Your task to perform on an android device: Show me recent news Image 0: 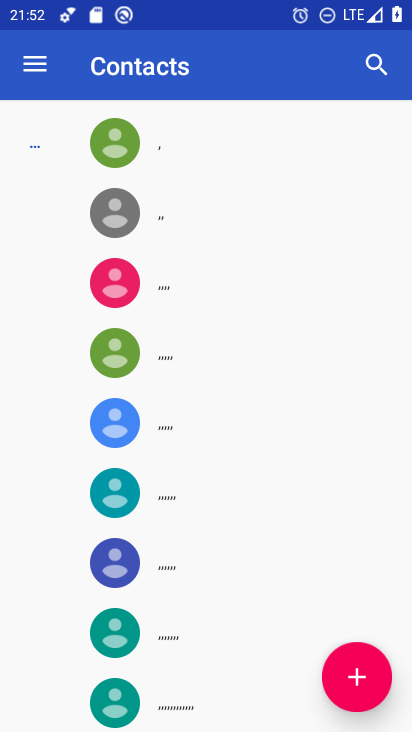
Step 0: press home button
Your task to perform on an android device: Show me recent news Image 1: 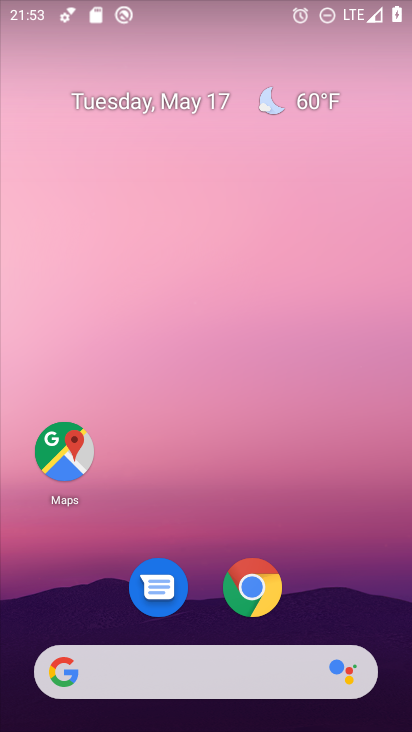
Step 1: press home button
Your task to perform on an android device: Show me recent news Image 2: 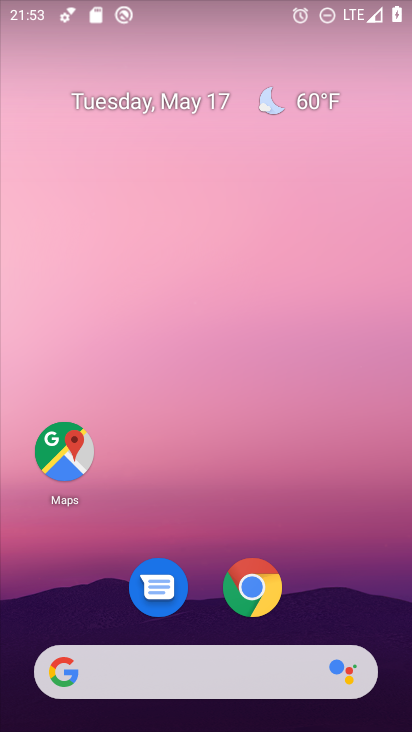
Step 2: click (245, 196)
Your task to perform on an android device: Show me recent news Image 3: 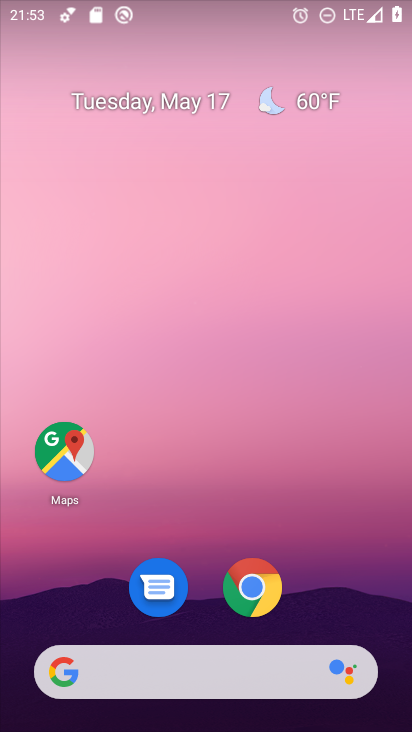
Step 3: drag from (218, 547) to (238, 141)
Your task to perform on an android device: Show me recent news Image 4: 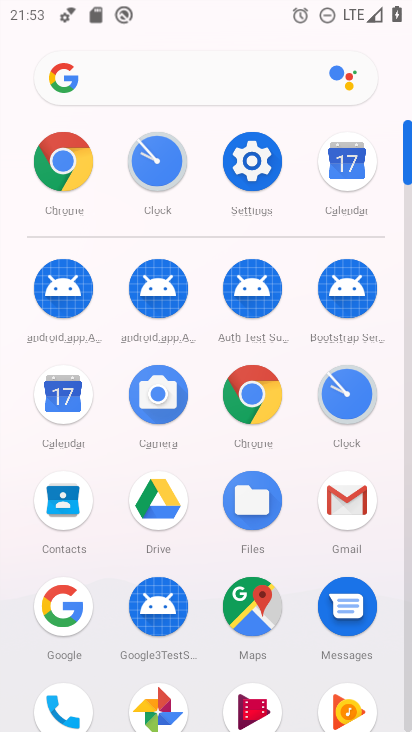
Step 4: click (64, 599)
Your task to perform on an android device: Show me recent news Image 5: 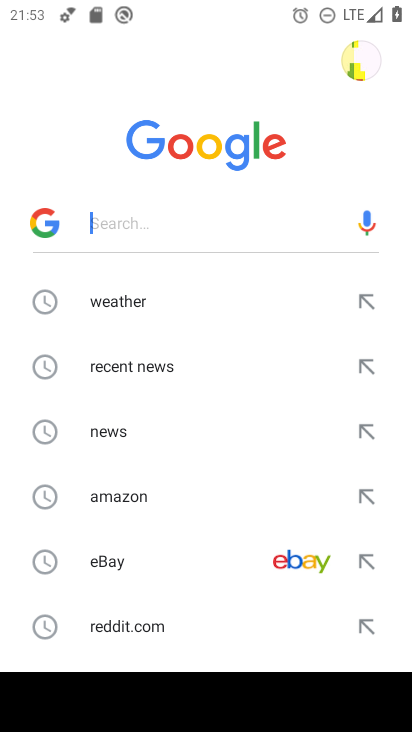
Step 5: drag from (148, 406) to (136, 373)
Your task to perform on an android device: Show me recent news Image 6: 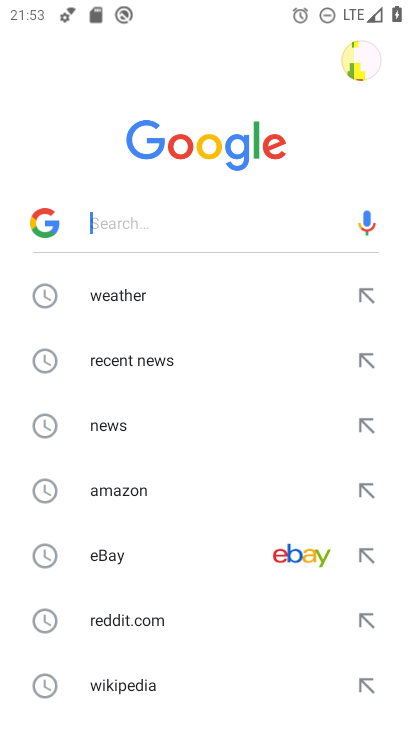
Step 6: click (135, 367)
Your task to perform on an android device: Show me recent news Image 7: 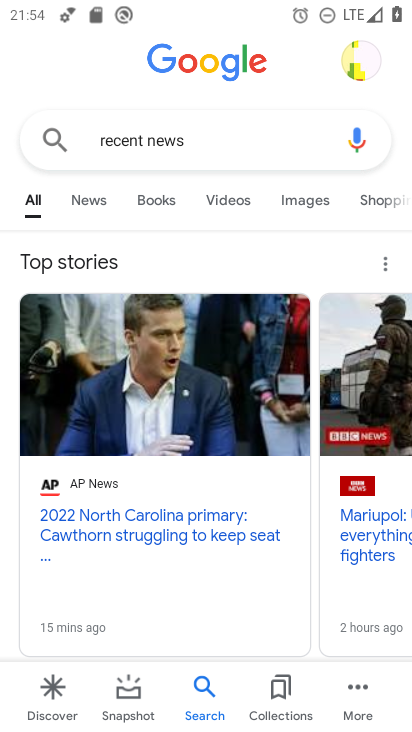
Step 7: task complete